Your task to perform on an android device: Search for the new Nintendo switch on Best Buy Image 0: 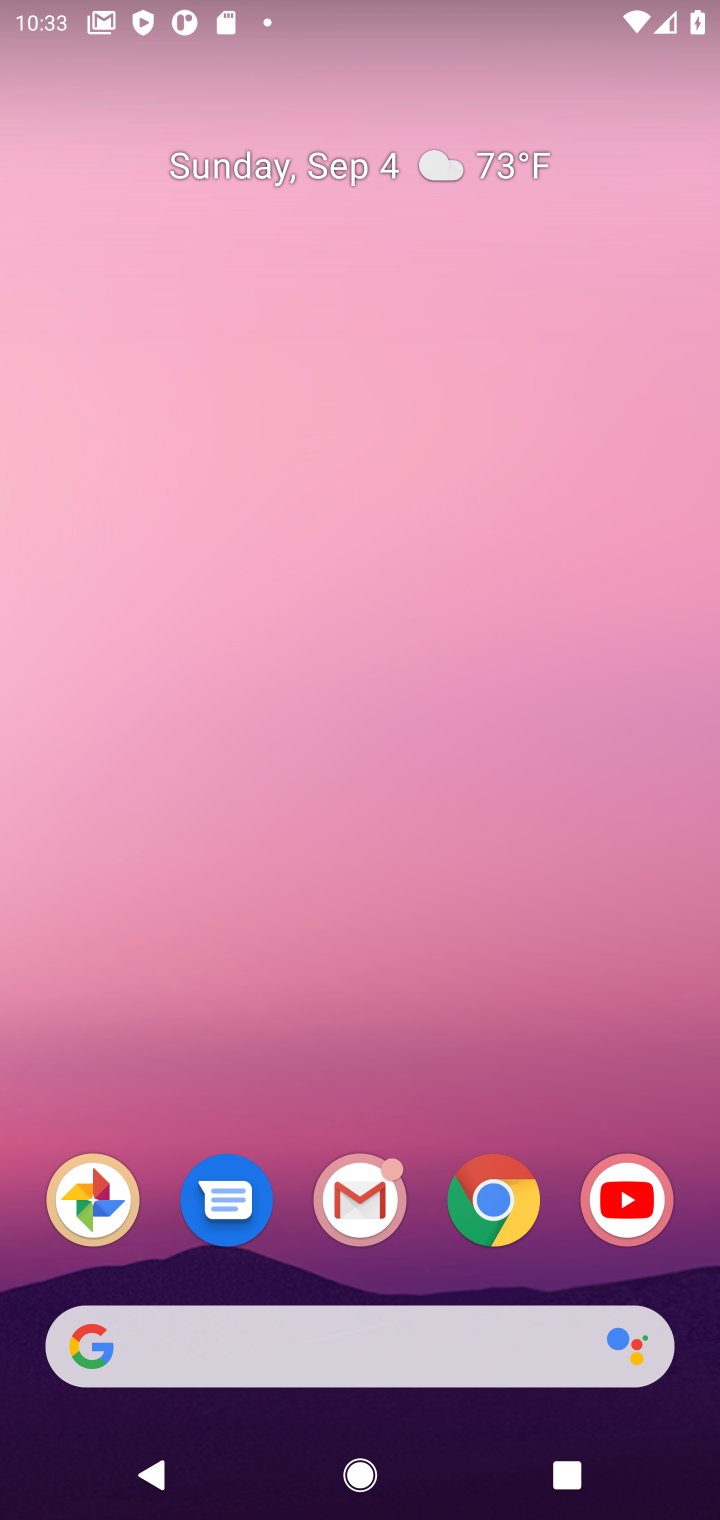
Step 0: click (523, 1207)
Your task to perform on an android device: Search for the new Nintendo switch on Best Buy Image 1: 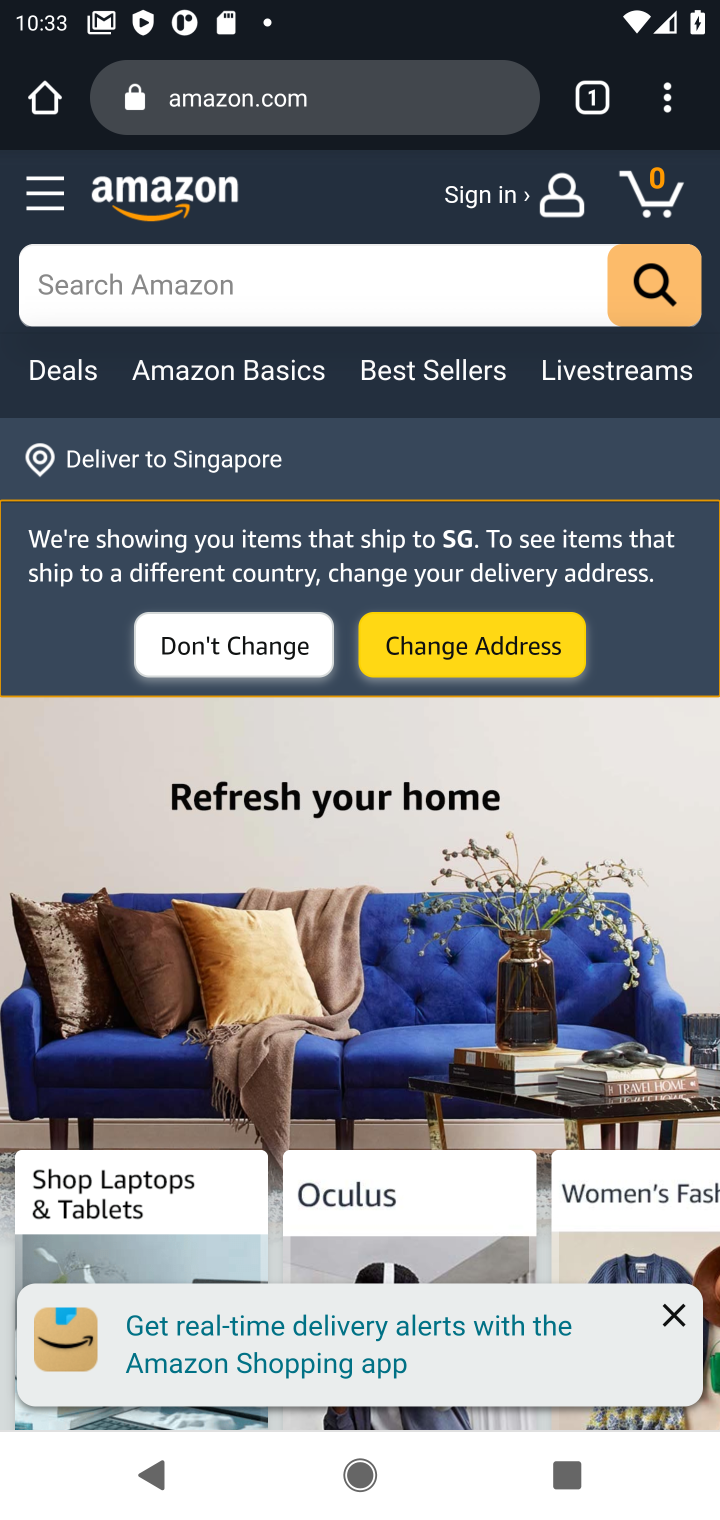
Step 1: click (381, 93)
Your task to perform on an android device: Search for the new Nintendo switch on Best Buy Image 2: 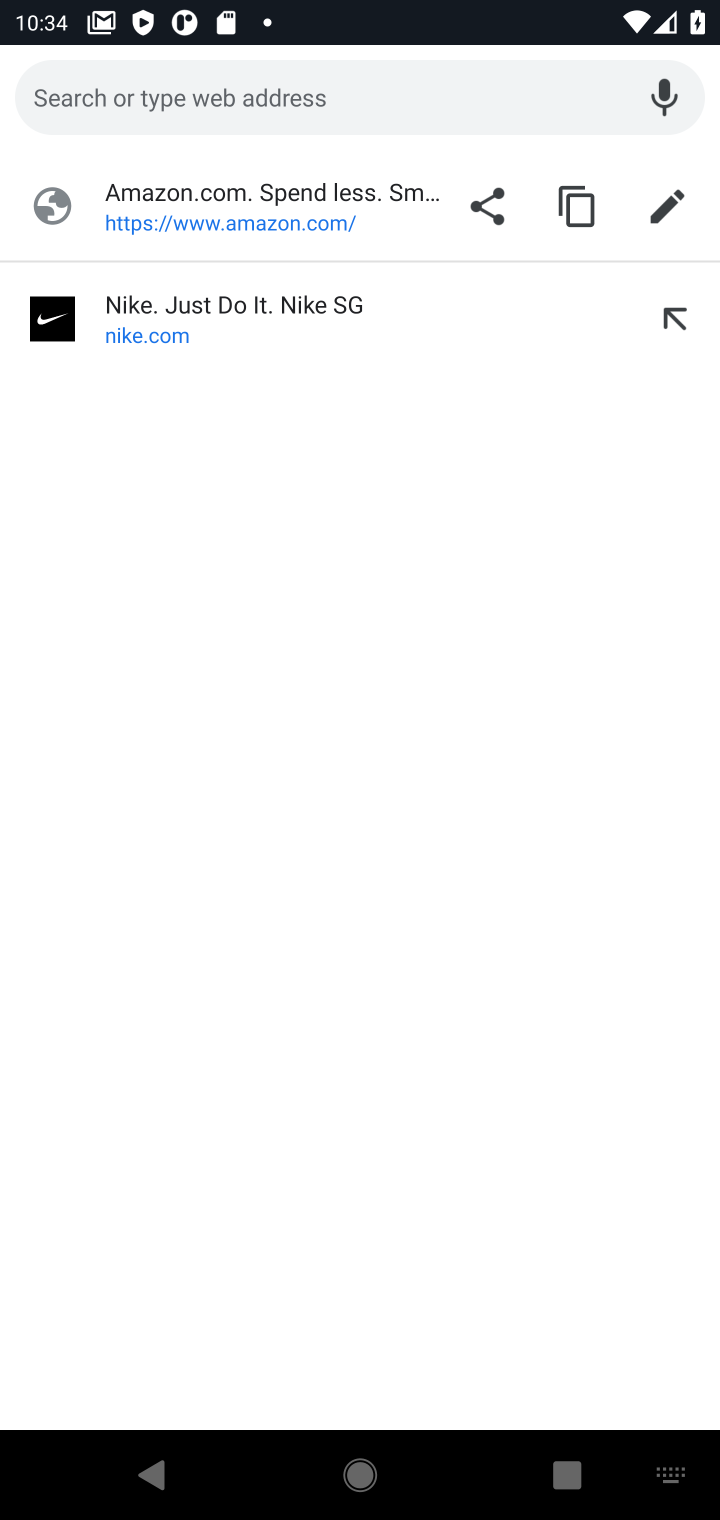
Step 2: type "best buy"
Your task to perform on an android device: Search for the new Nintendo switch on Best Buy Image 3: 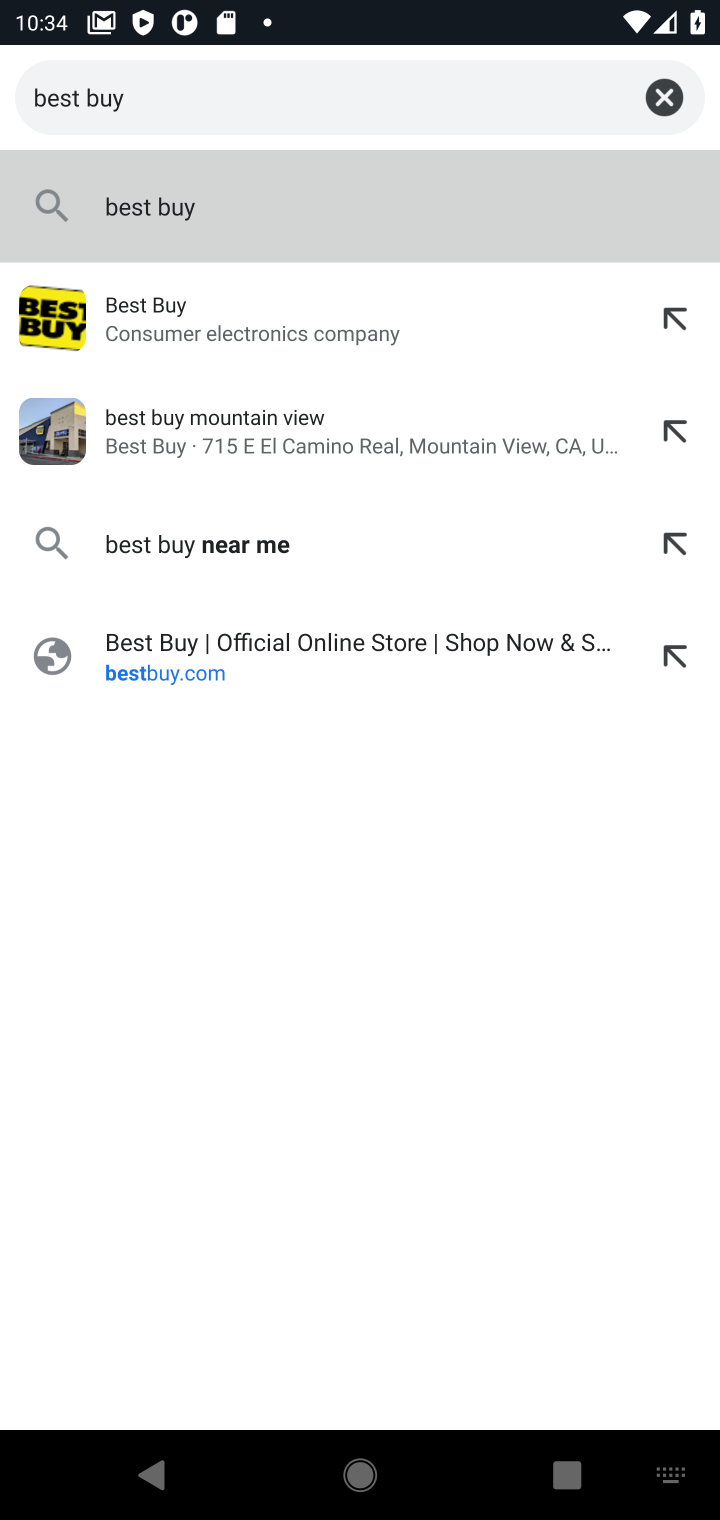
Step 3: click (500, 334)
Your task to perform on an android device: Search for the new Nintendo switch on Best Buy Image 4: 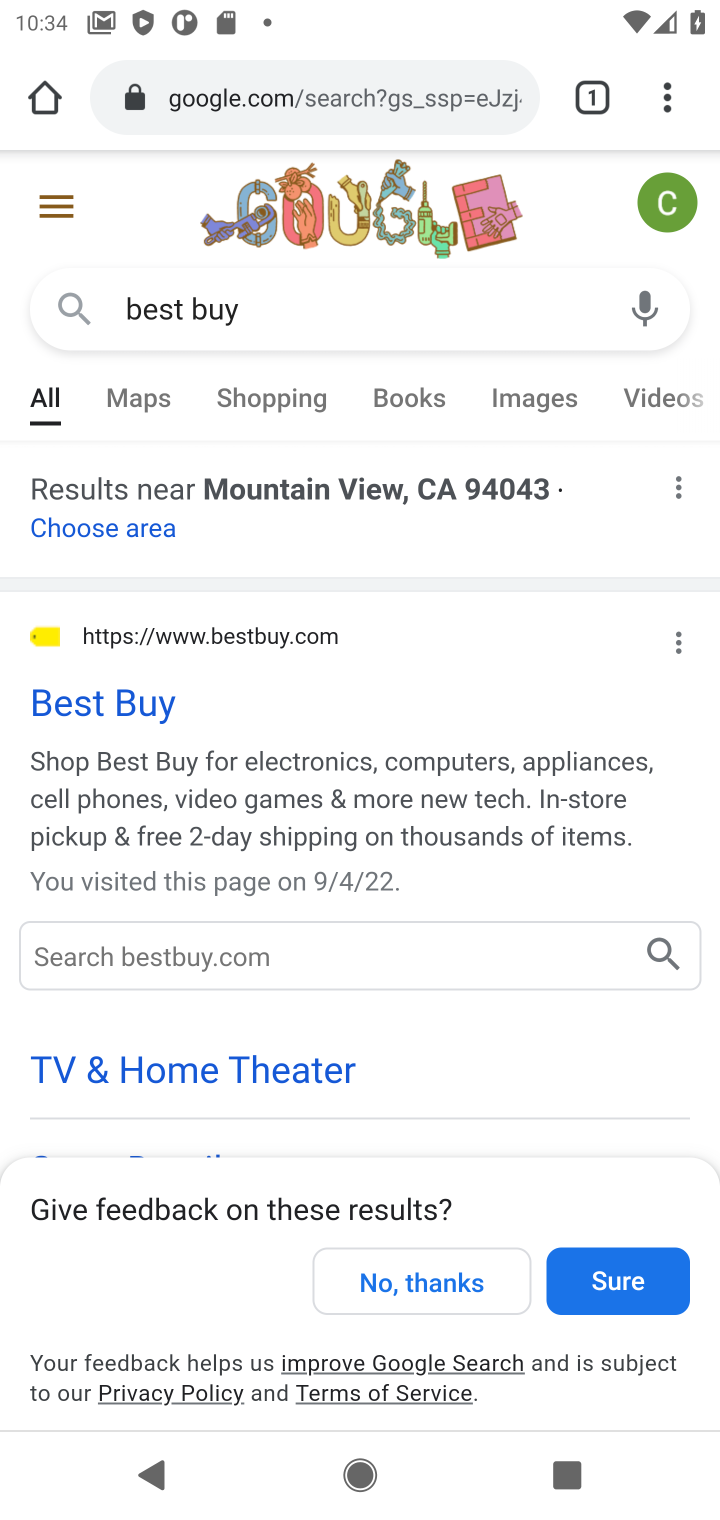
Step 4: click (173, 722)
Your task to perform on an android device: Search for the new Nintendo switch on Best Buy Image 5: 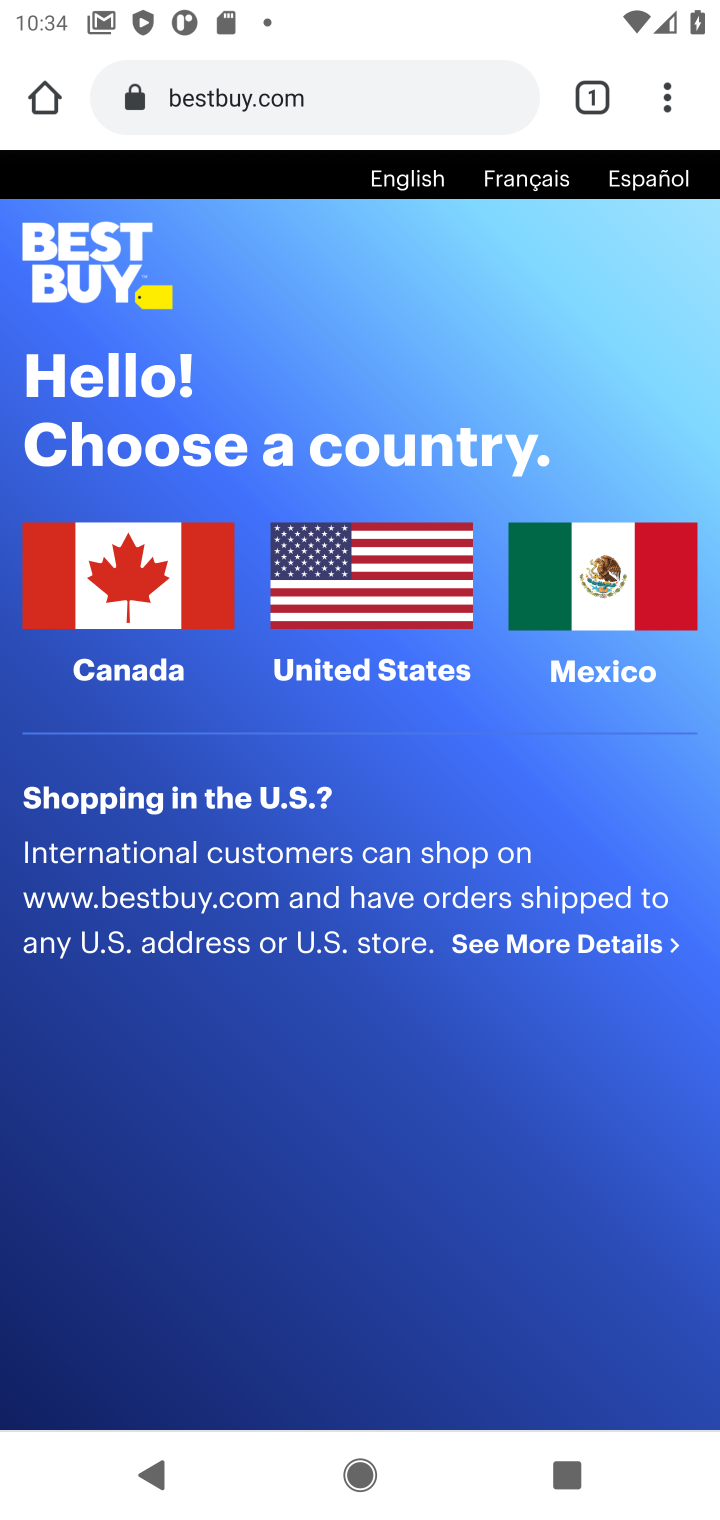
Step 5: click (353, 562)
Your task to perform on an android device: Search for the new Nintendo switch on Best Buy Image 6: 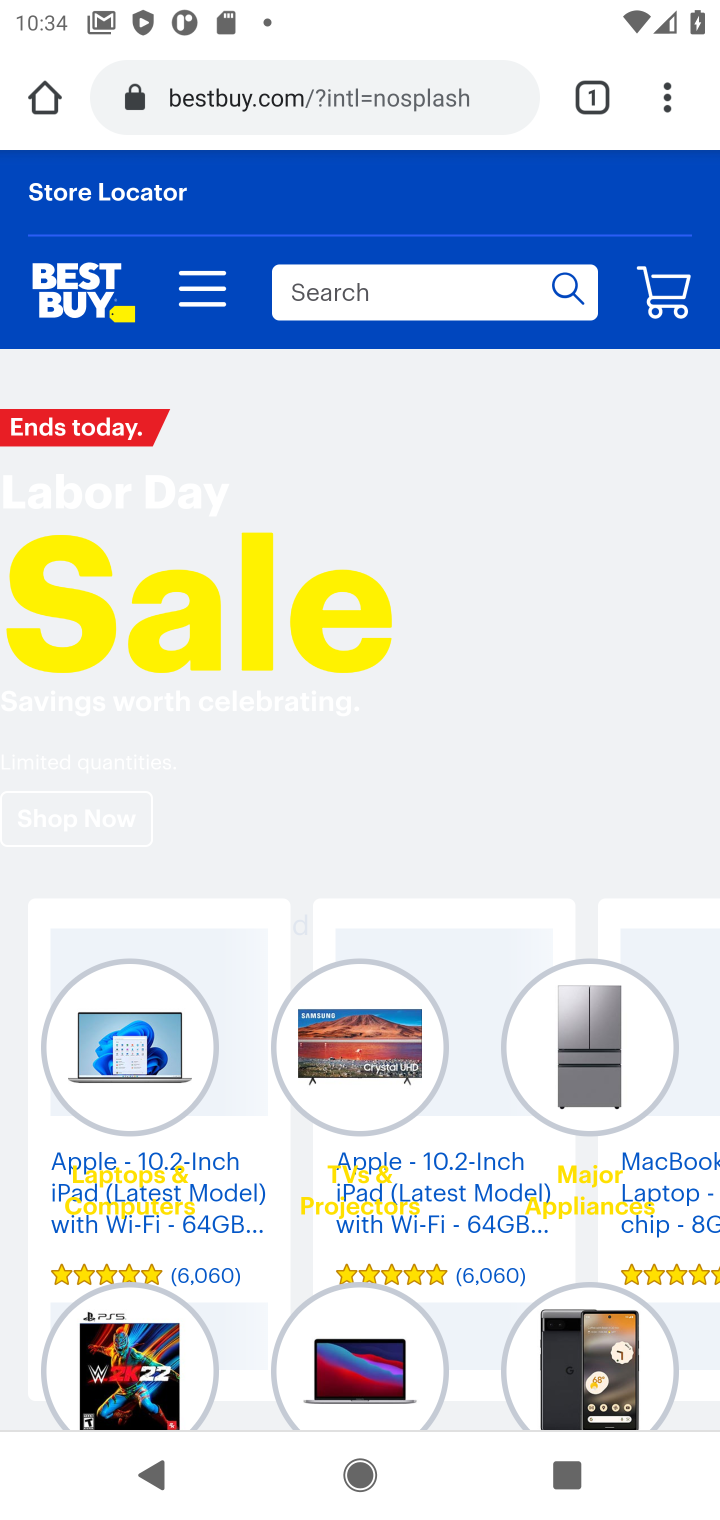
Step 6: click (469, 307)
Your task to perform on an android device: Search for the new Nintendo switch on Best Buy Image 7: 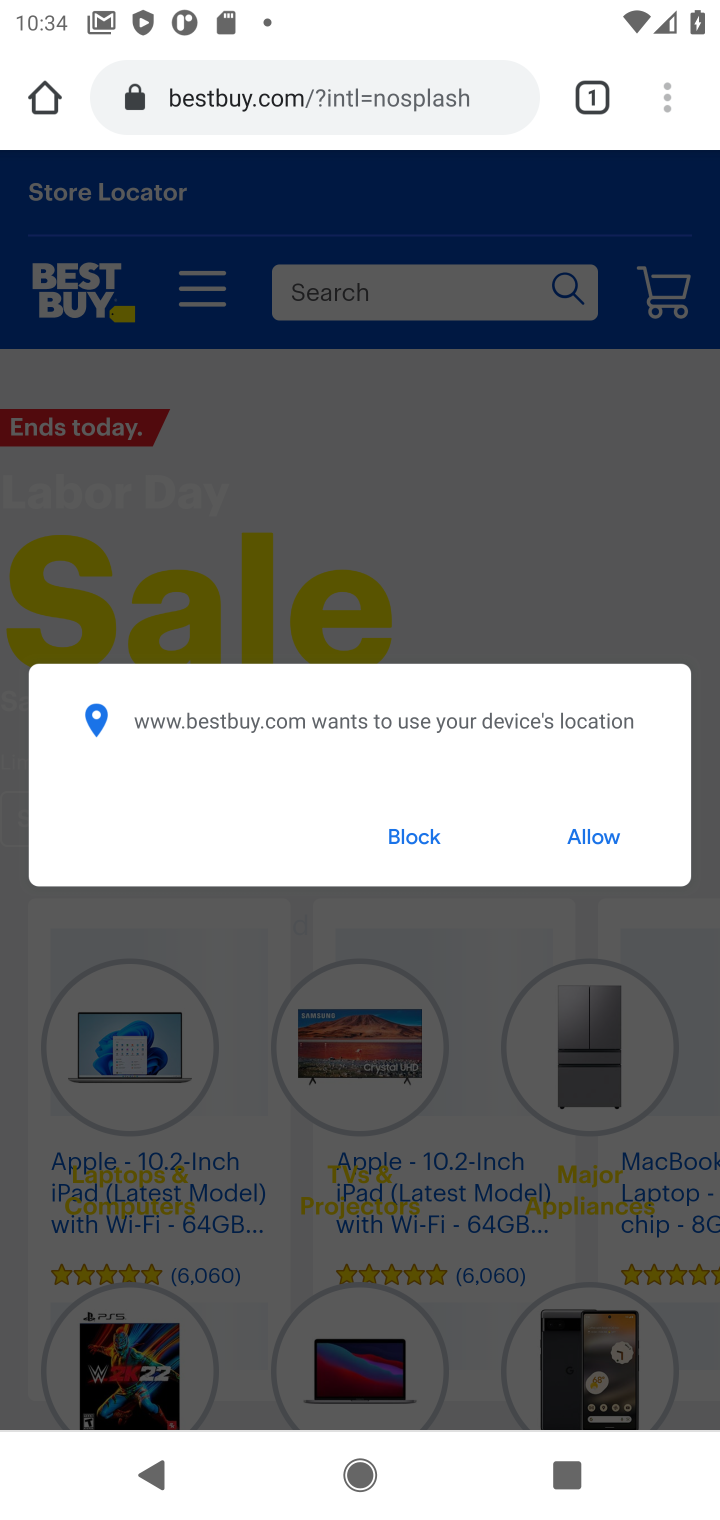
Step 7: click (400, 832)
Your task to perform on an android device: Search for the new Nintendo switch on Best Buy Image 8: 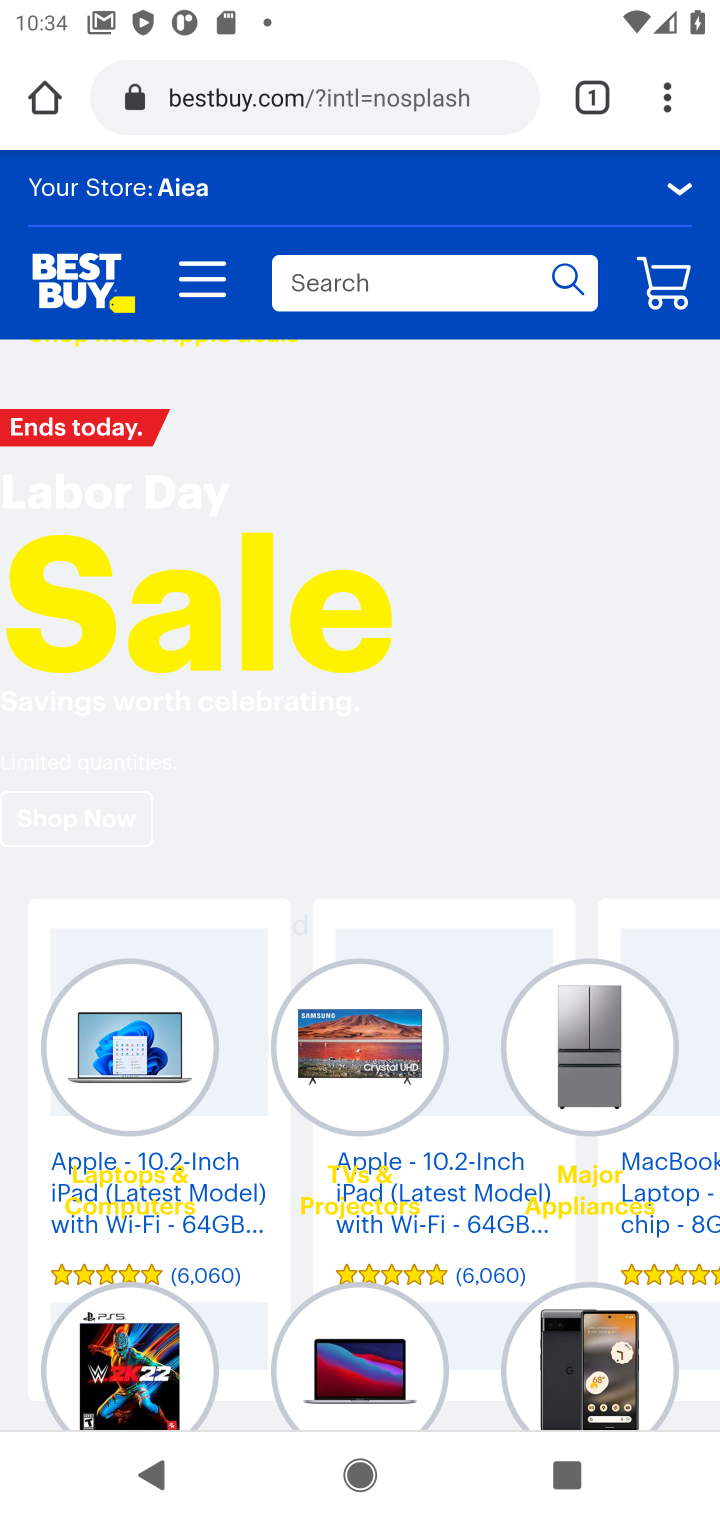
Step 8: click (505, 290)
Your task to perform on an android device: Search for the new Nintendo switch on Best Buy Image 9: 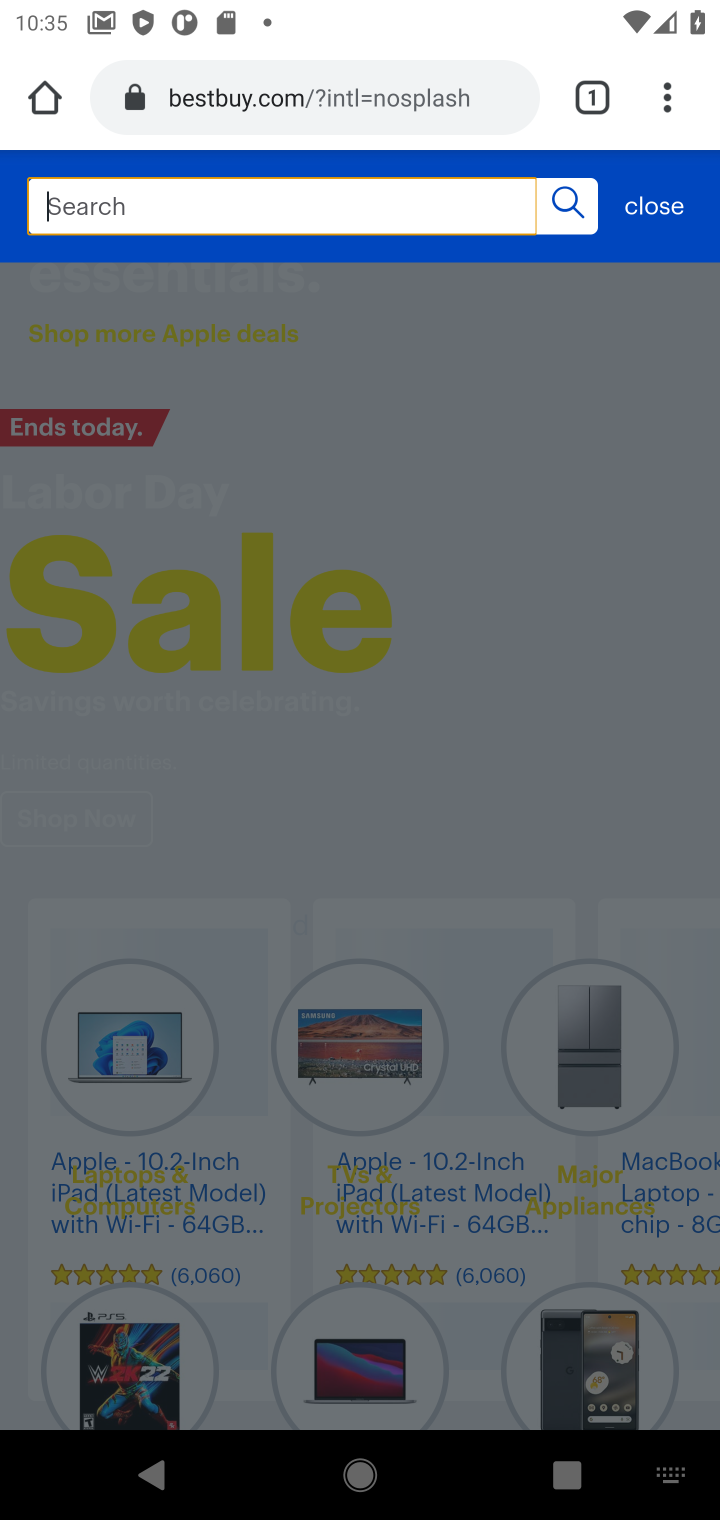
Step 9: type "new nintendo switch"
Your task to perform on an android device: Search for the new Nintendo switch on Best Buy Image 10: 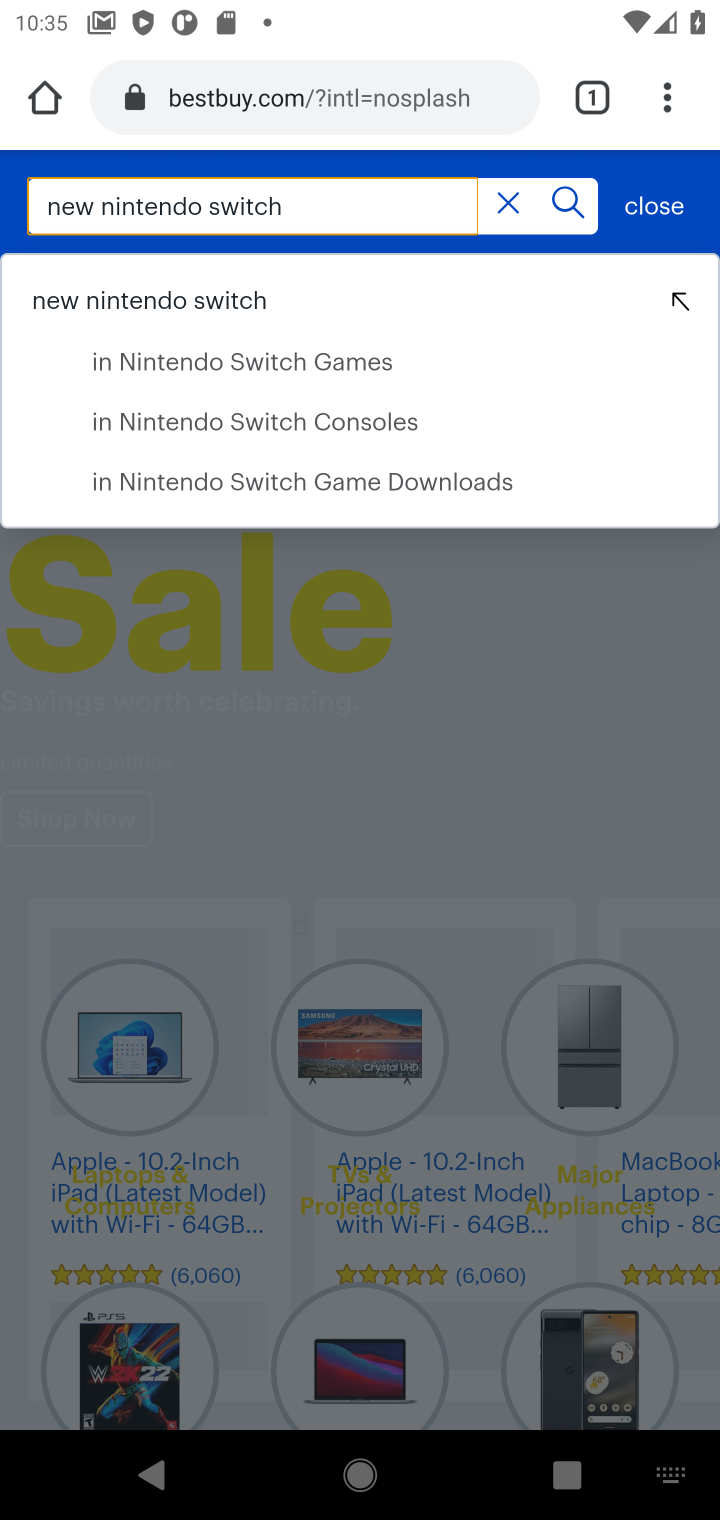
Step 10: click (254, 301)
Your task to perform on an android device: Search for the new Nintendo switch on Best Buy Image 11: 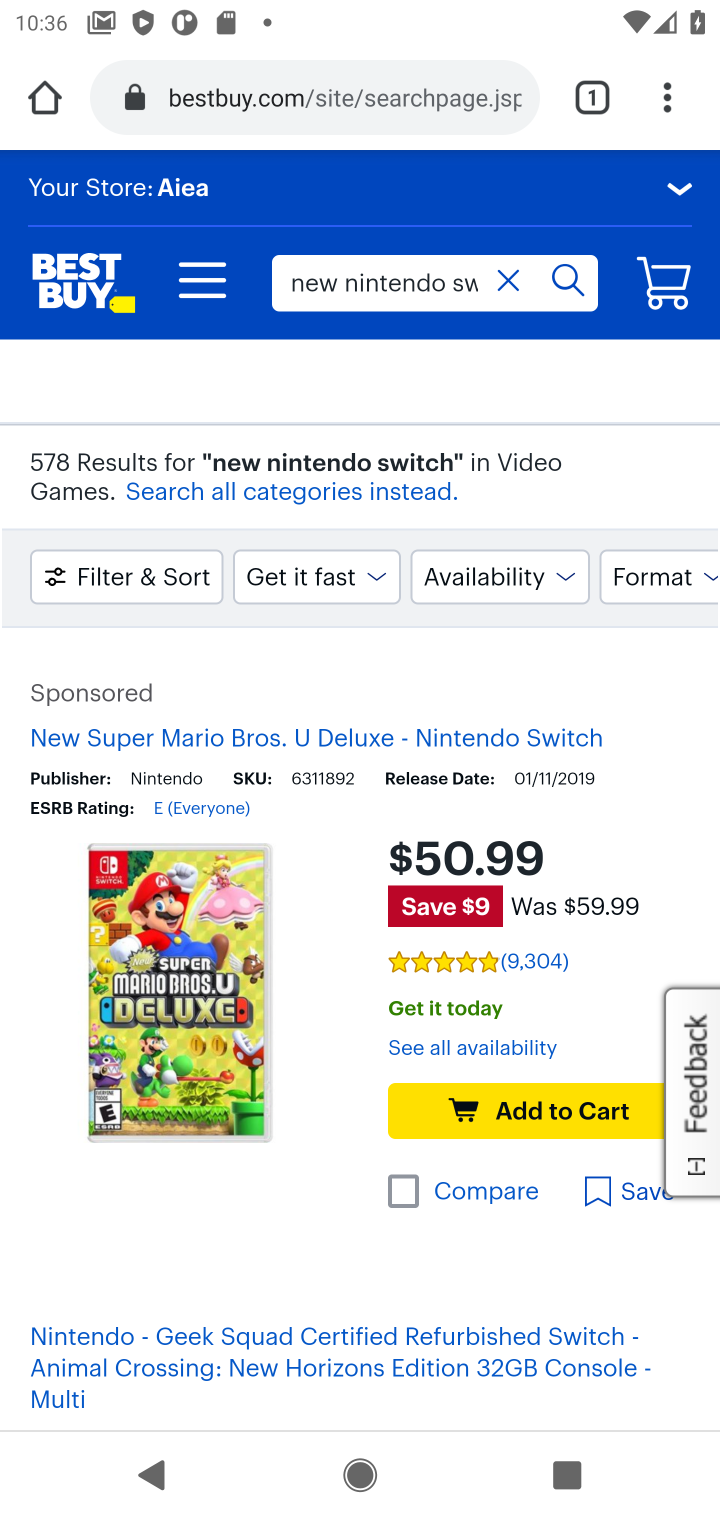
Step 11: task complete